Your task to perform on an android device: turn on translation in the chrome app Image 0: 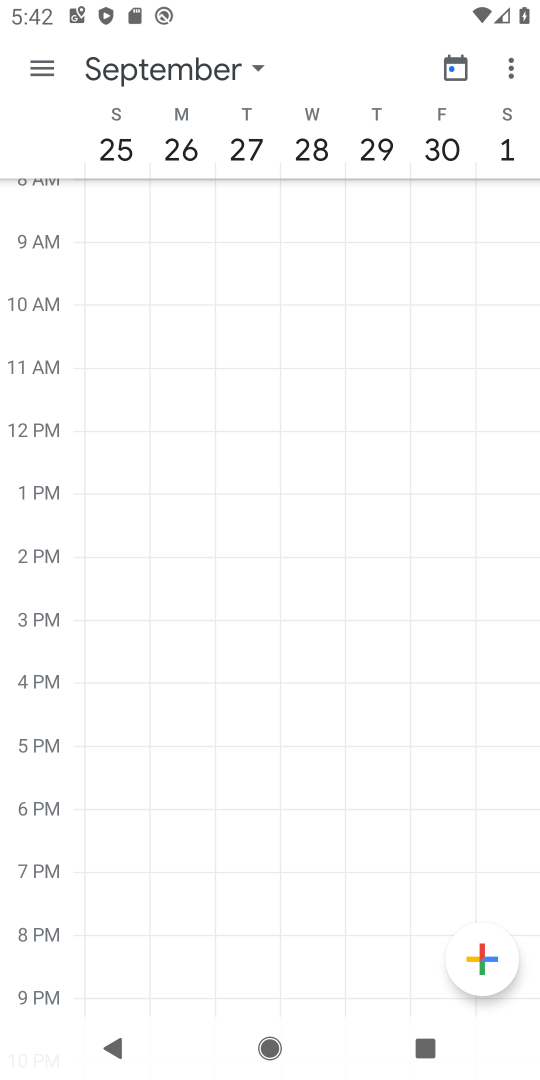
Step 0: press home button
Your task to perform on an android device: turn on translation in the chrome app Image 1: 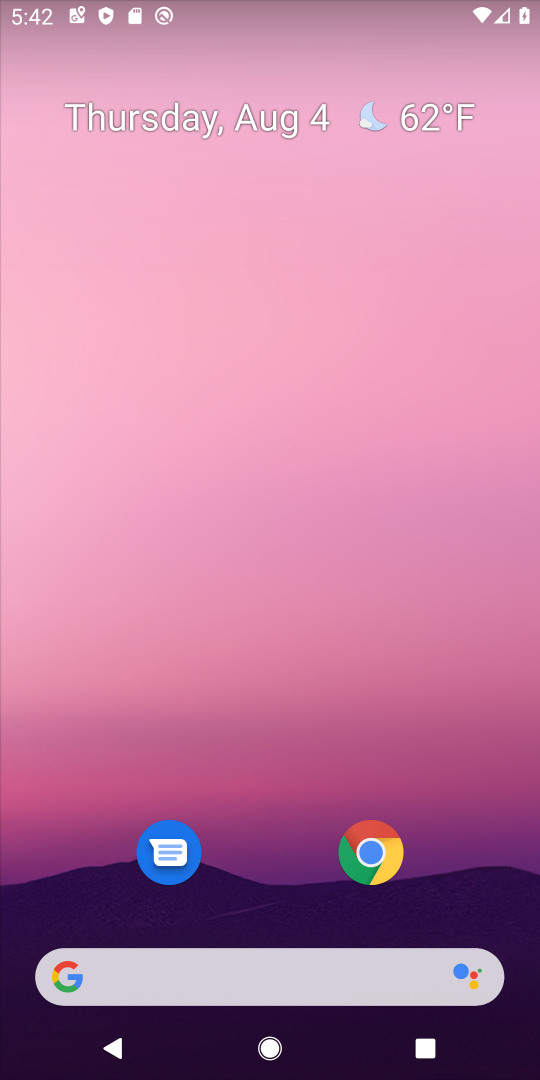
Step 1: click (377, 871)
Your task to perform on an android device: turn on translation in the chrome app Image 2: 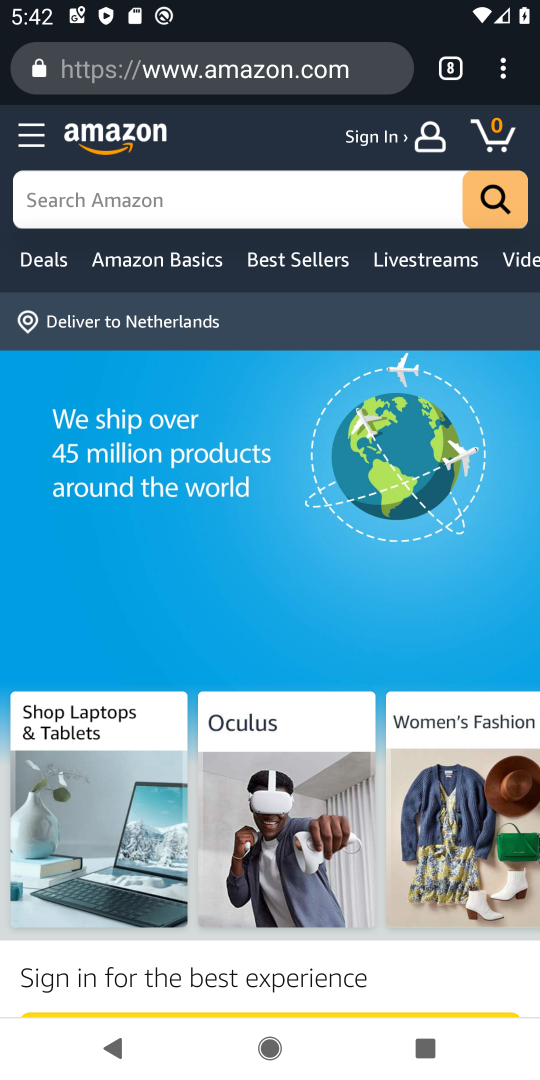
Step 2: click (500, 79)
Your task to perform on an android device: turn on translation in the chrome app Image 3: 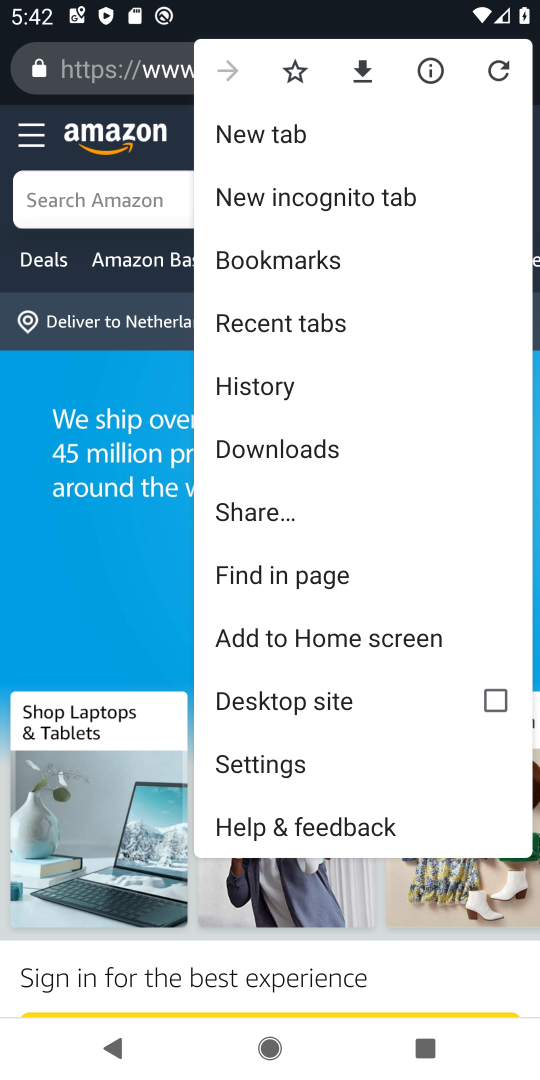
Step 3: click (261, 758)
Your task to perform on an android device: turn on translation in the chrome app Image 4: 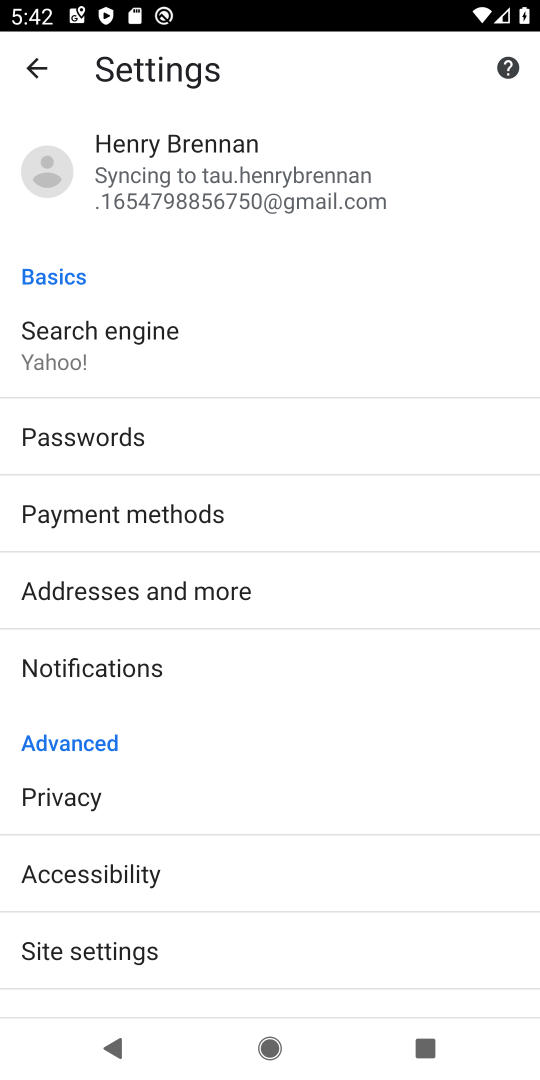
Step 4: drag from (130, 898) to (102, 487)
Your task to perform on an android device: turn on translation in the chrome app Image 5: 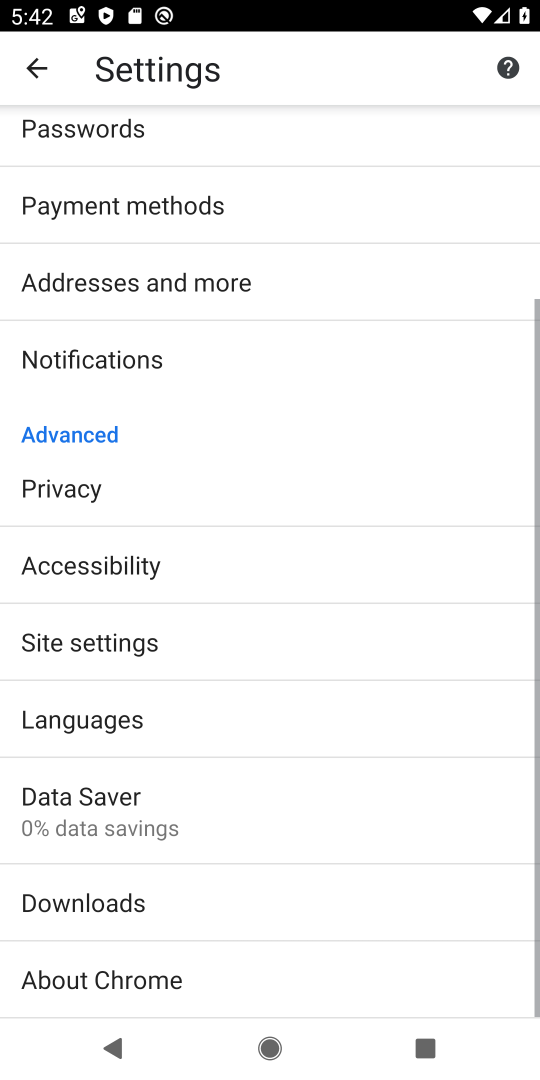
Step 5: click (83, 719)
Your task to perform on an android device: turn on translation in the chrome app Image 6: 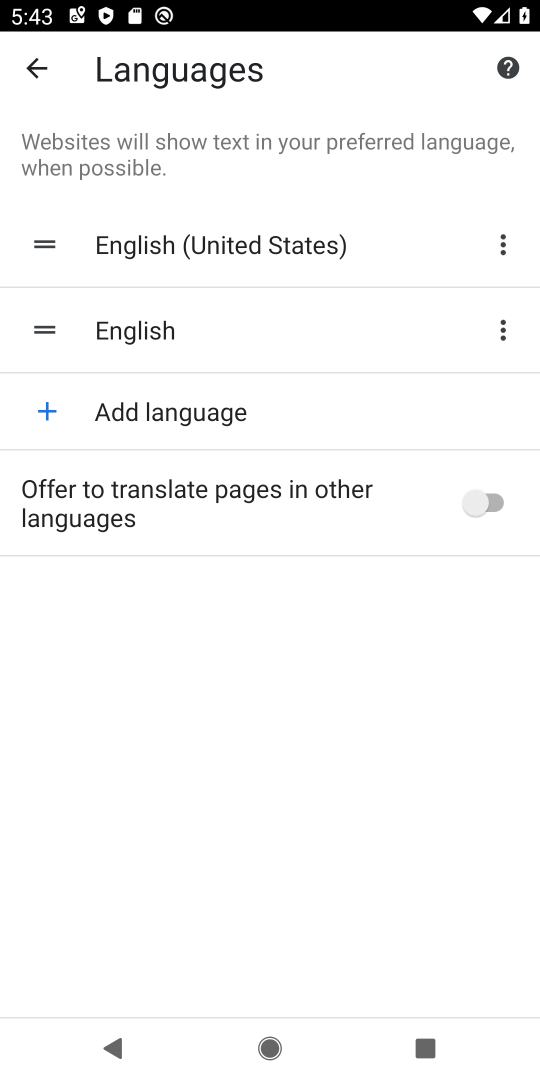
Step 6: click (483, 497)
Your task to perform on an android device: turn on translation in the chrome app Image 7: 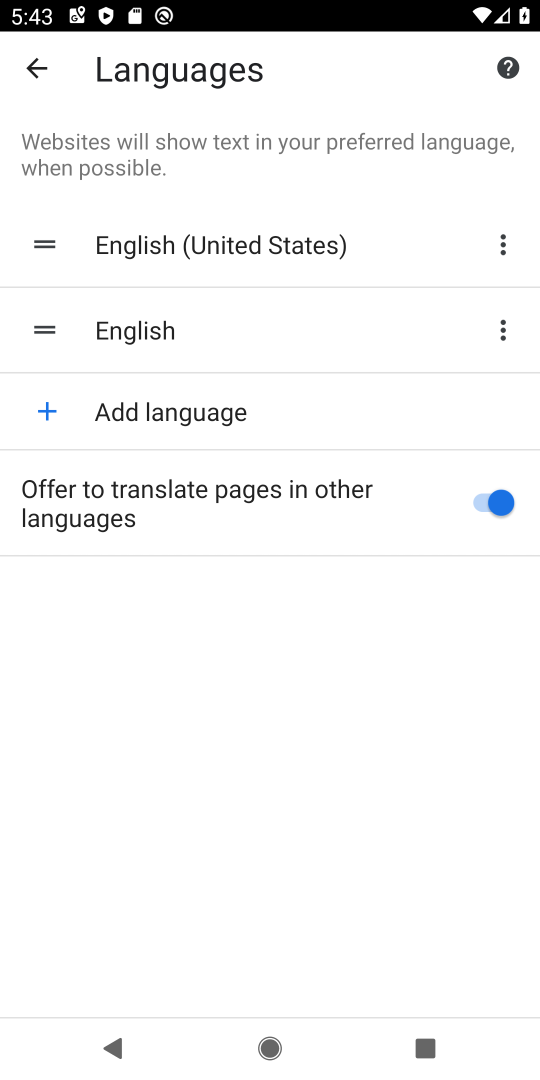
Step 7: task complete